Your task to perform on an android device: turn off improve location accuracy Image 0: 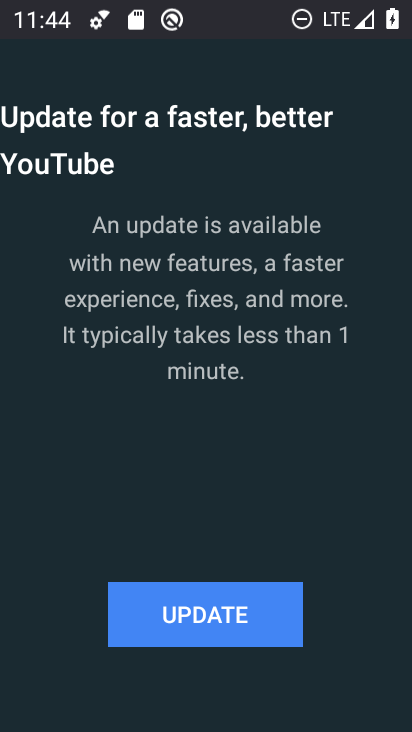
Step 0: press back button
Your task to perform on an android device: turn off improve location accuracy Image 1: 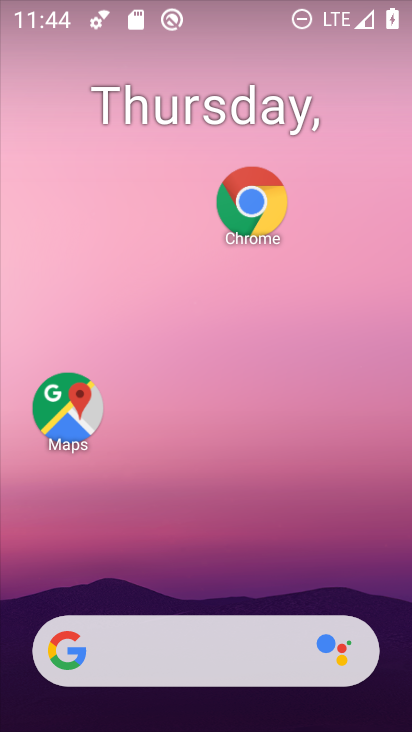
Step 1: drag from (218, 576) to (338, 26)
Your task to perform on an android device: turn off improve location accuracy Image 2: 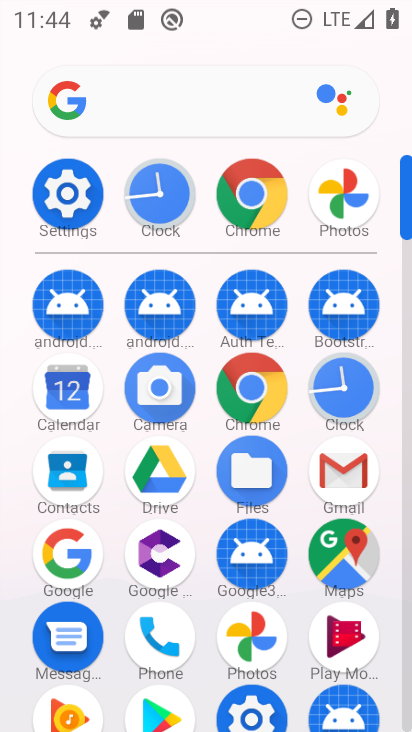
Step 2: click (75, 209)
Your task to perform on an android device: turn off improve location accuracy Image 3: 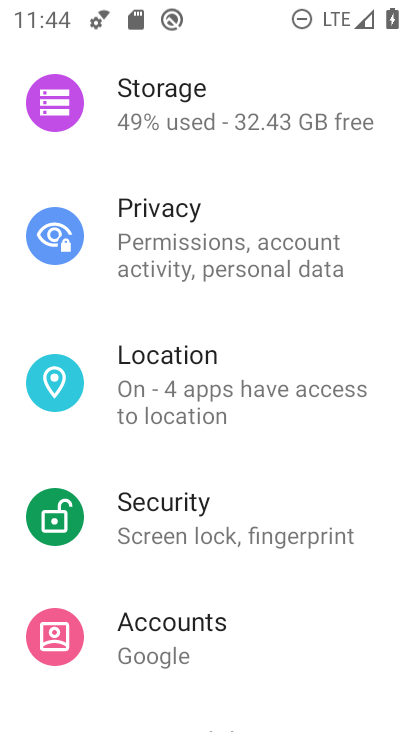
Step 3: click (165, 379)
Your task to perform on an android device: turn off improve location accuracy Image 4: 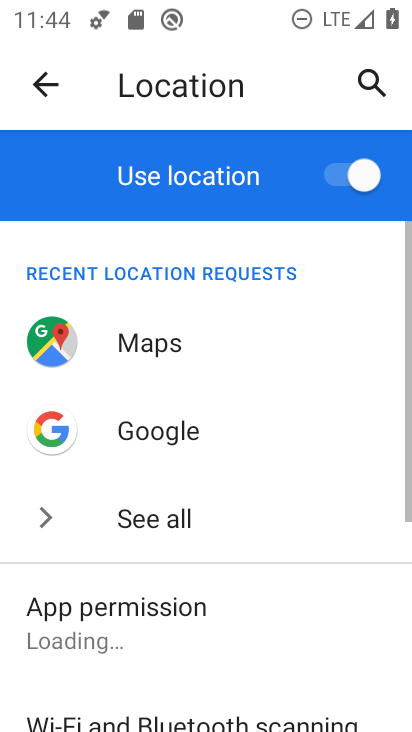
Step 4: drag from (214, 606) to (219, 14)
Your task to perform on an android device: turn off improve location accuracy Image 5: 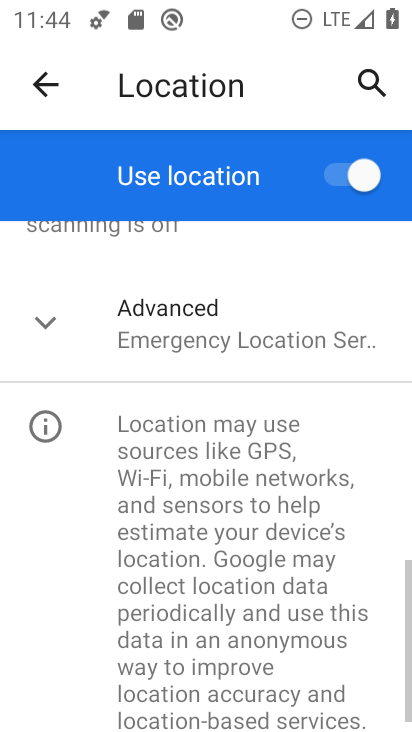
Step 5: click (214, 351)
Your task to perform on an android device: turn off improve location accuracy Image 6: 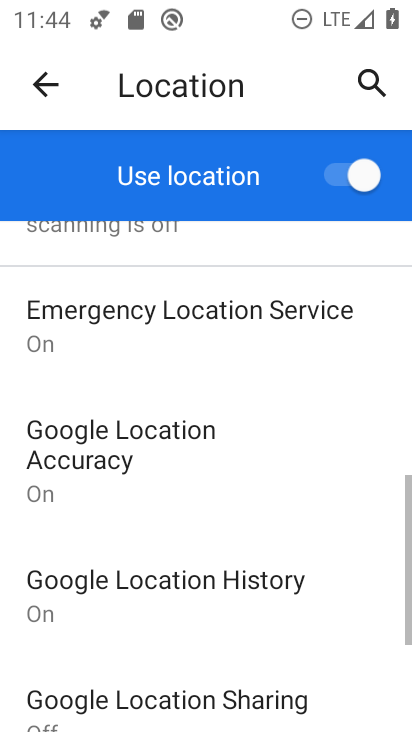
Step 6: click (158, 460)
Your task to perform on an android device: turn off improve location accuracy Image 7: 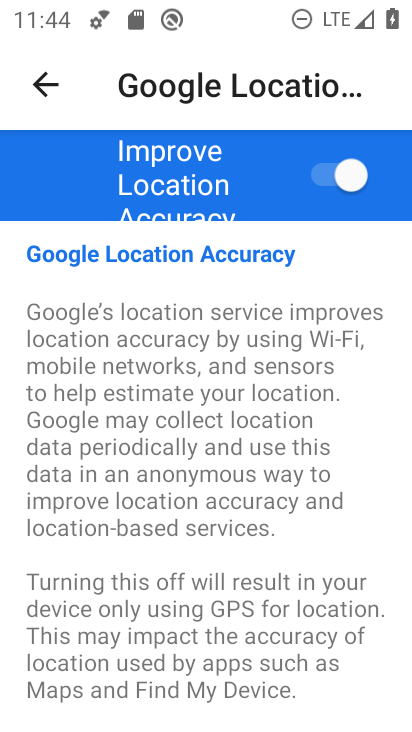
Step 7: click (325, 187)
Your task to perform on an android device: turn off improve location accuracy Image 8: 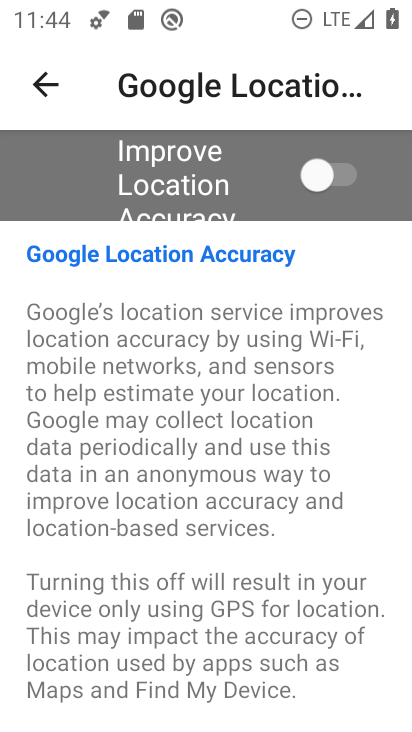
Step 8: task complete